Your task to perform on an android device: add a contact Image 0: 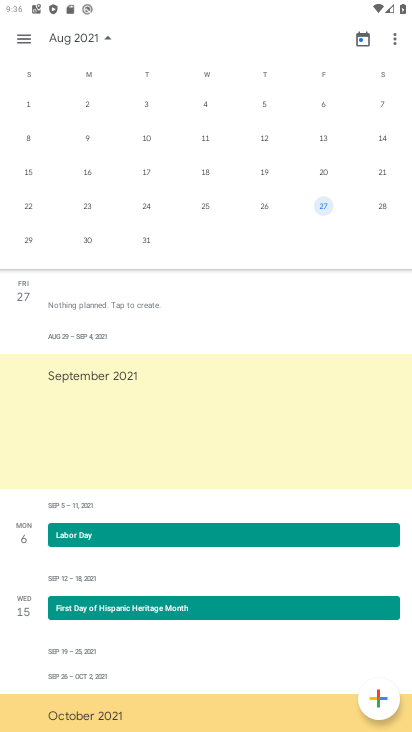
Step 0: press home button
Your task to perform on an android device: add a contact Image 1: 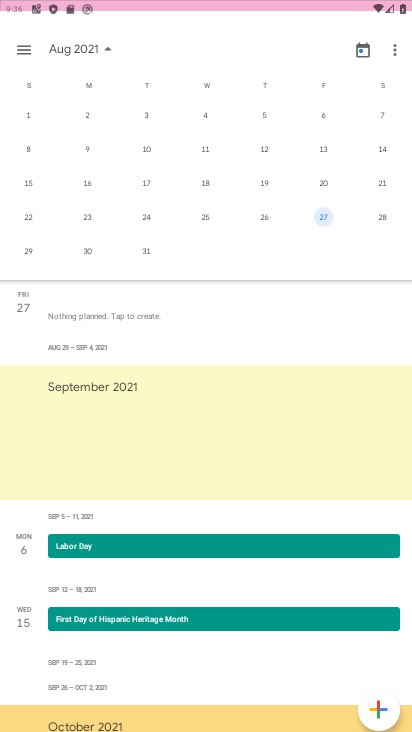
Step 1: drag from (136, 482) to (266, 153)
Your task to perform on an android device: add a contact Image 2: 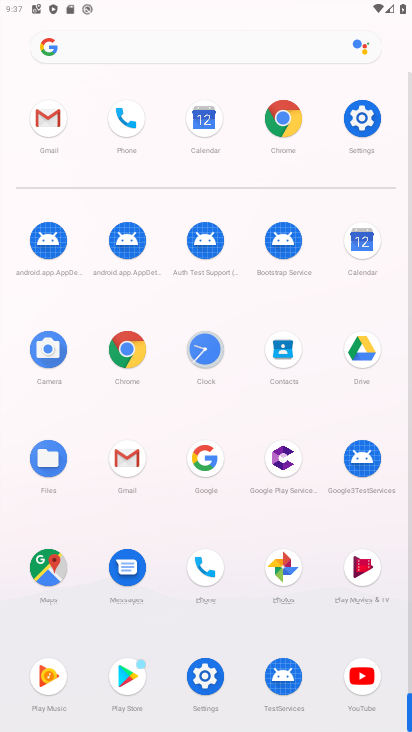
Step 2: click (284, 358)
Your task to perform on an android device: add a contact Image 3: 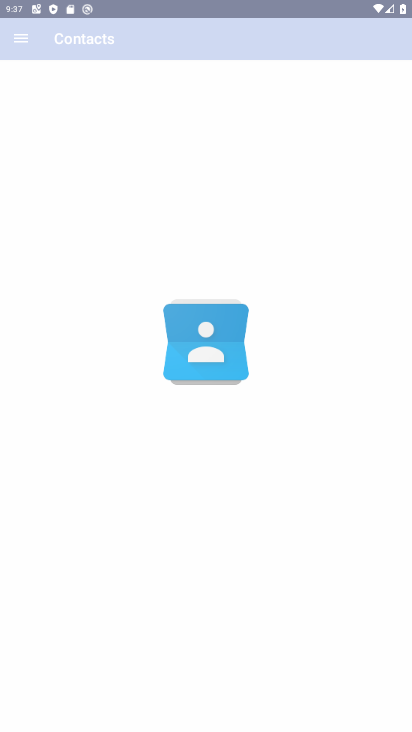
Step 3: drag from (262, 528) to (272, 271)
Your task to perform on an android device: add a contact Image 4: 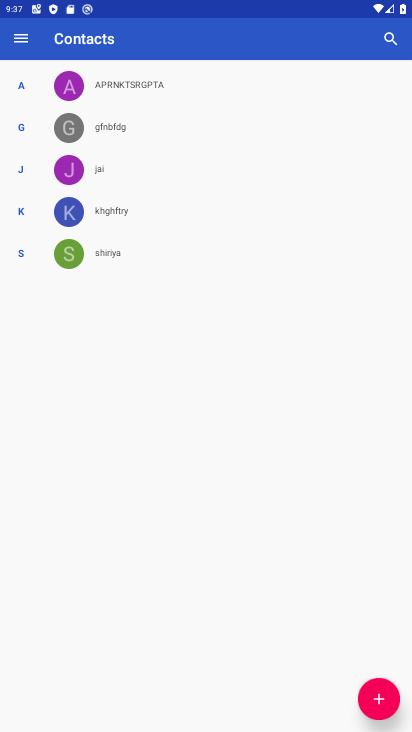
Step 4: click (376, 697)
Your task to perform on an android device: add a contact Image 5: 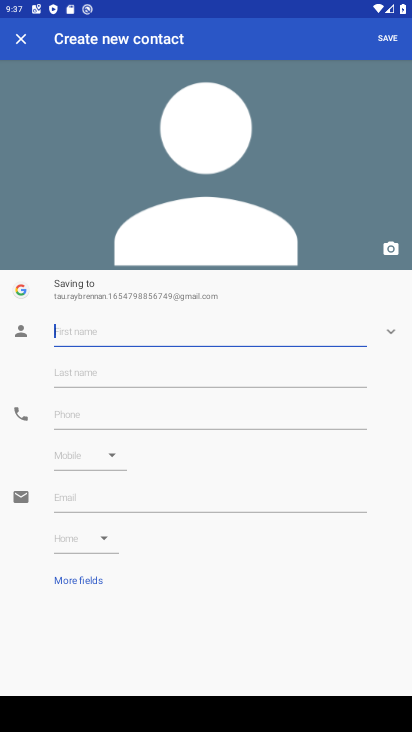
Step 5: type ""
Your task to perform on an android device: add a contact Image 6: 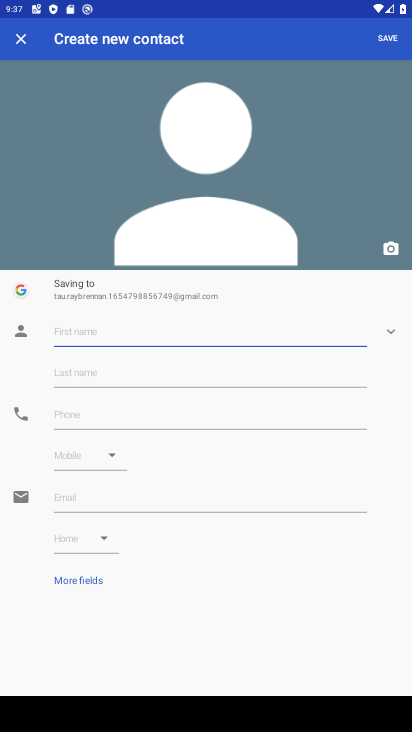
Step 6: type "jnhm"
Your task to perform on an android device: add a contact Image 7: 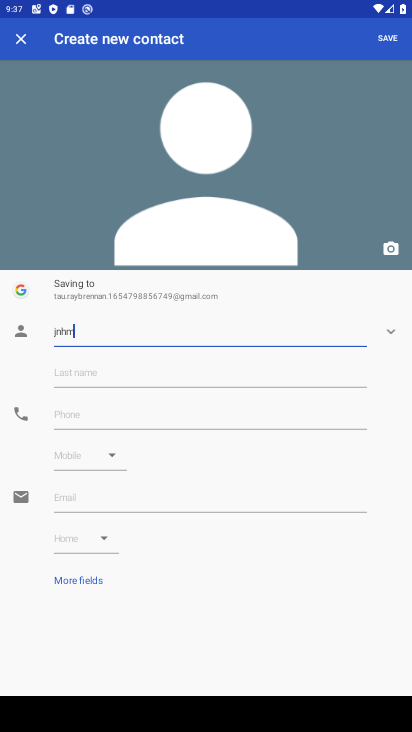
Step 7: click (394, 32)
Your task to perform on an android device: add a contact Image 8: 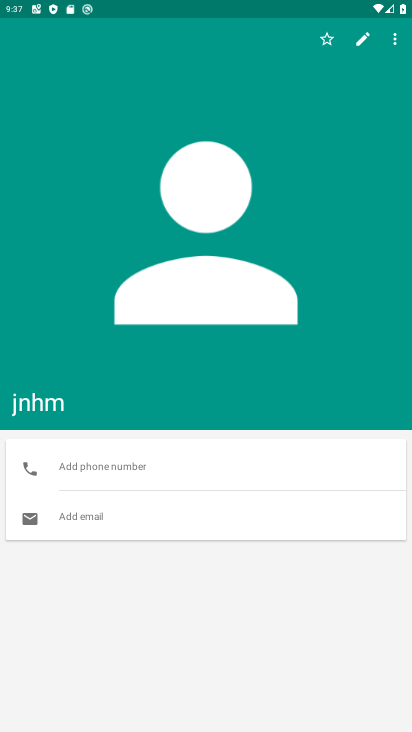
Step 8: task complete